Your task to perform on an android device: Open the Play Movies app and select the watchlist tab. Image 0: 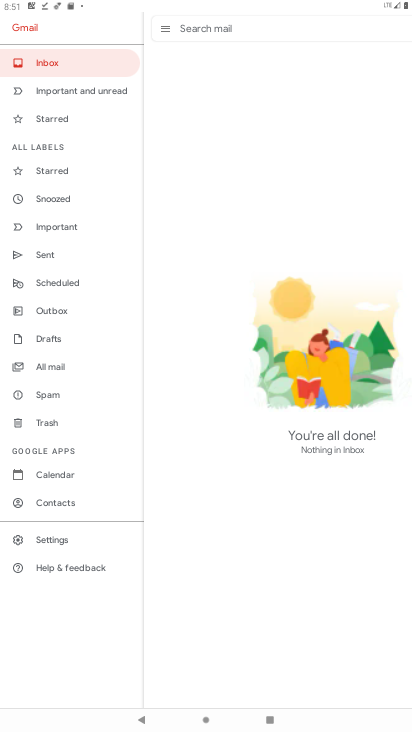
Step 0: press home button
Your task to perform on an android device: Open the Play Movies app and select the watchlist tab. Image 1: 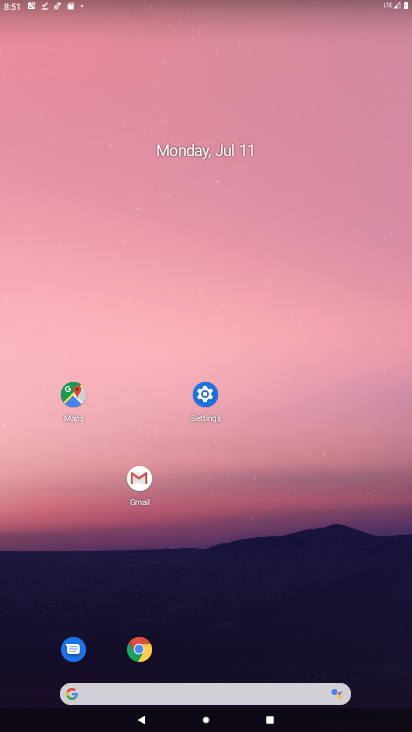
Step 1: drag from (349, 604) to (330, 83)
Your task to perform on an android device: Open the Play Movies app and select the watchlist tab. Image 2: 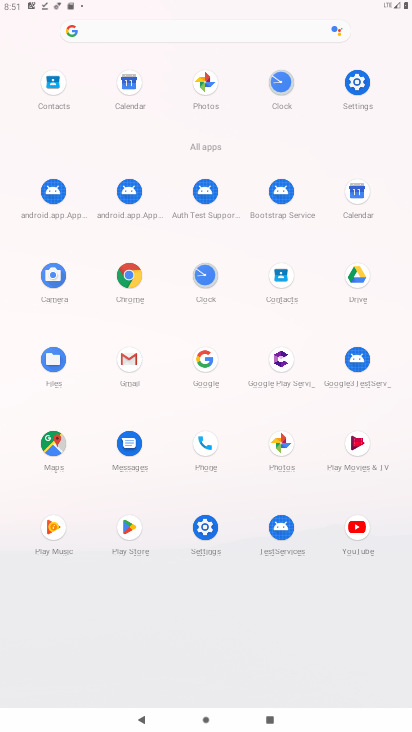
Step 2: click (358, 455)
Your task to perform on an android device: Open the Play Movies app and select the watchlist tab. Image 3: 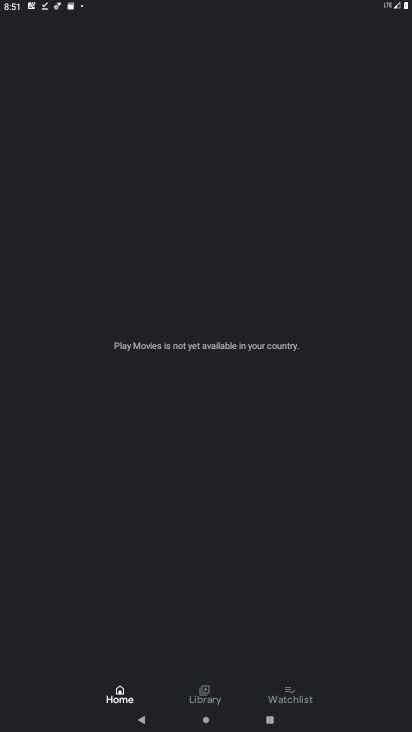
Step 3: click (295, 690)
Your task to perform on an android device: Open the Play Movies app and select the watchlist tab. Image 4: 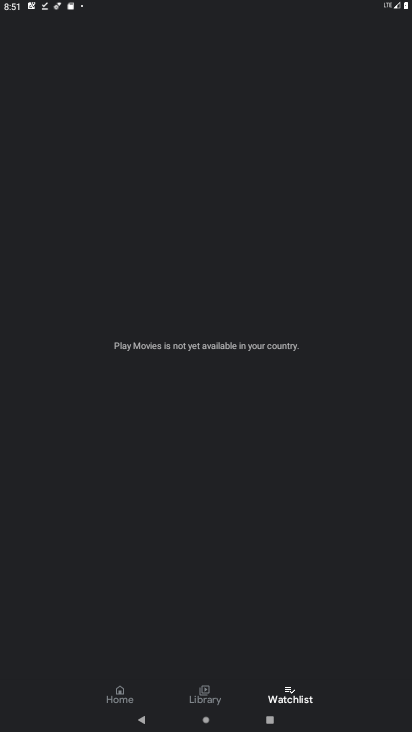
Step 4: task complete